Your task to perform on an android device: turn off notifications in google photos Image 0: 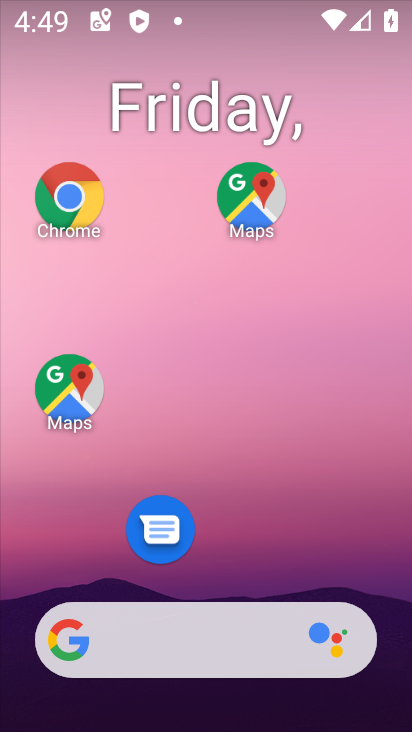
Step 0: drag from (262, 547) to (243, 107)
Your task to perform on an android device: turn off notifications in google photos Image 1: 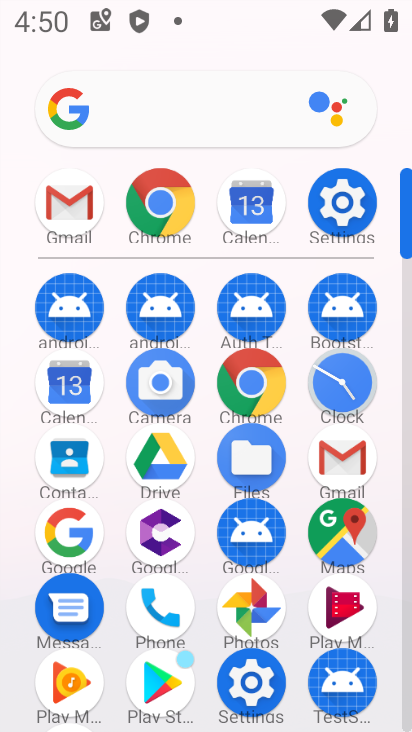
Step 1: drag from (326, 577) to (405, 387)
Your task to perform on an android device: turn off notifications in google photos Image 2: 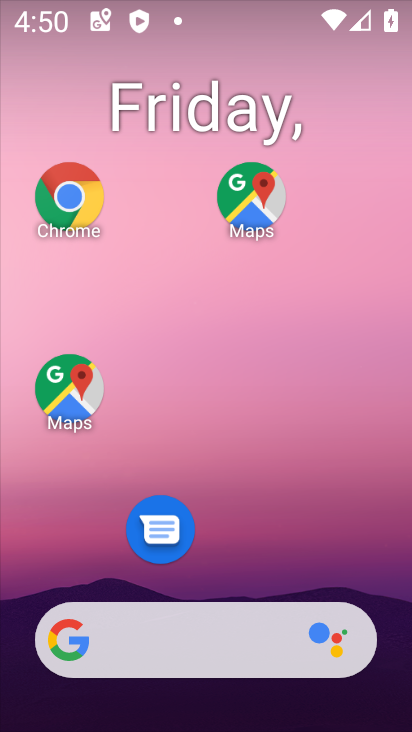
Step 2: click (202, 628)
Your task to perform on an android device: turn off notifications in google photos Image 3: 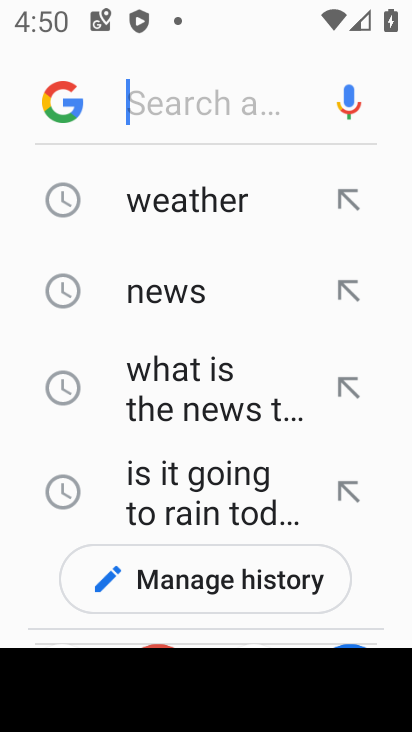
Step 3: press home button
Your task to perform on an android device: turn off notifications in google photos Image 4: 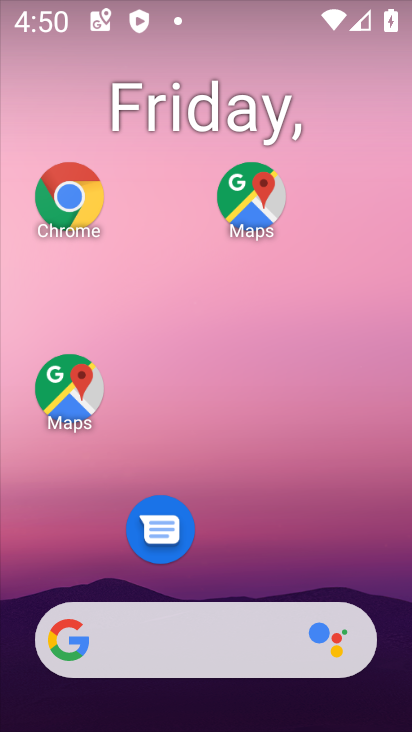
Step 4: drag from (231, 558) to (214, 121)
Your task to perform on an android device: turn off notifications in google photos Image 5: 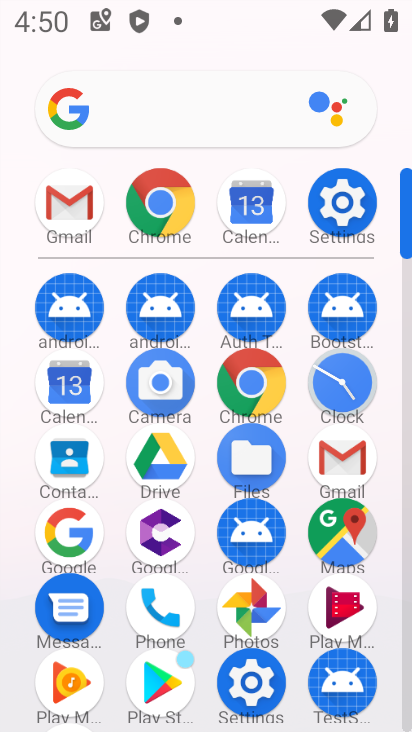
Step 5: click (248, 603)
Your task to perform on an android device: turn off notifications in google photos Image 6: 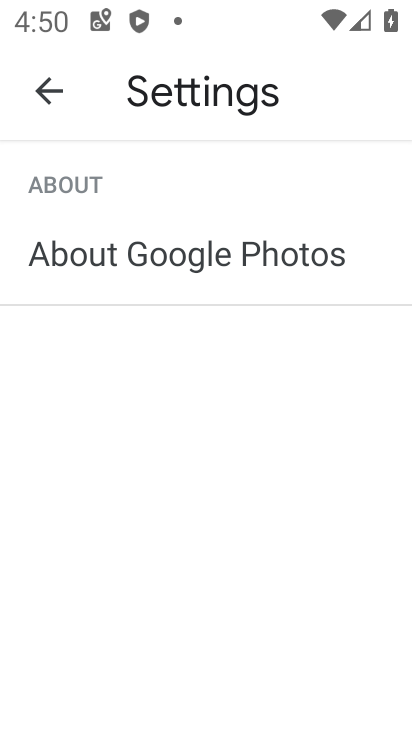
Step 6: click (38, 91)
Your task to perform on an android device: turn off notifications in google photos Image 7: 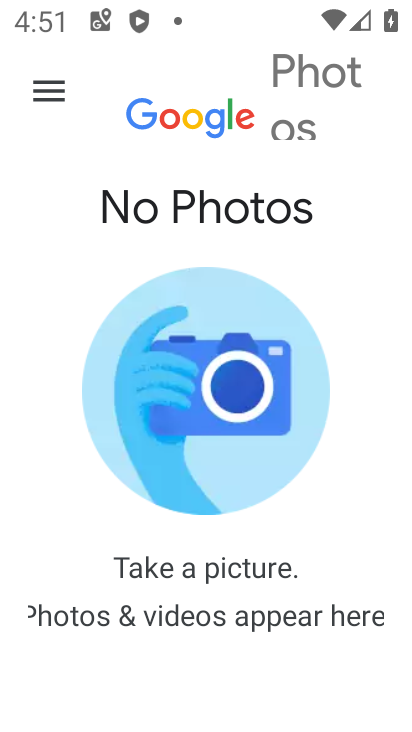
Step 7: click (53, 86)
Your task to perform on an android device: turn off notifications in google photos Image 8: 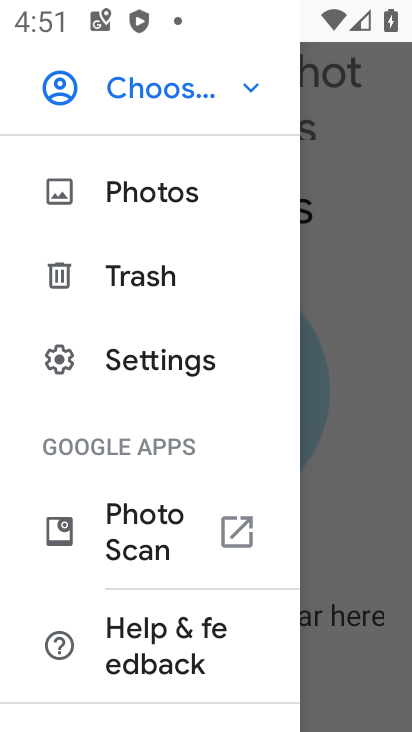
Step 8: drag from (157, 603) to (213, 329)
Your task to perform on an android device: turn off notifications in google photos Image 9: 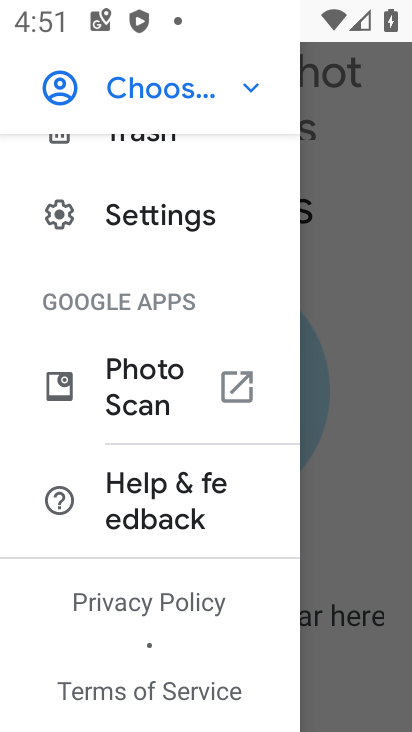
Step 9: click (142, 225)
Your task to perform on an android device: turn off notifications in google photos Image 10: 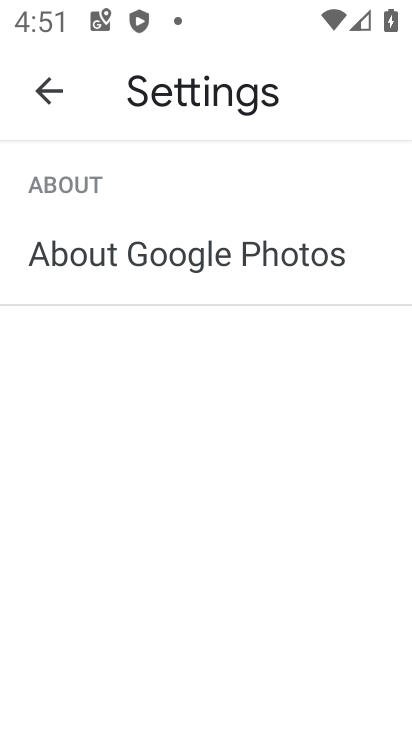
Step 10: click (42, 91)
Your task to perform on an android device: turn off notifications in google photos Image 11: 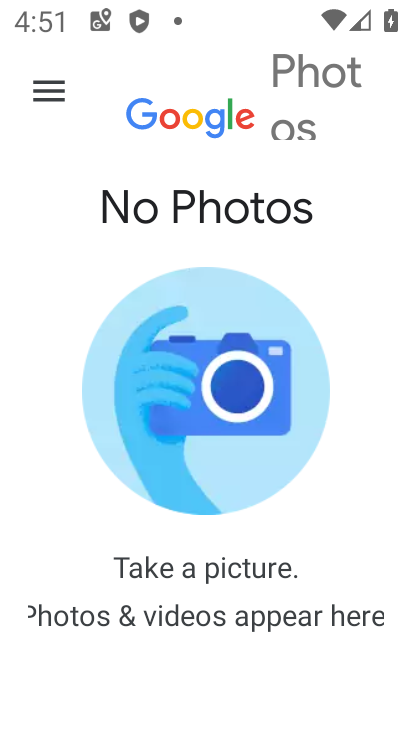
Step 11: click (43, 90)
Your task to perform on an android device: turn off notifications in google photos Image 12: 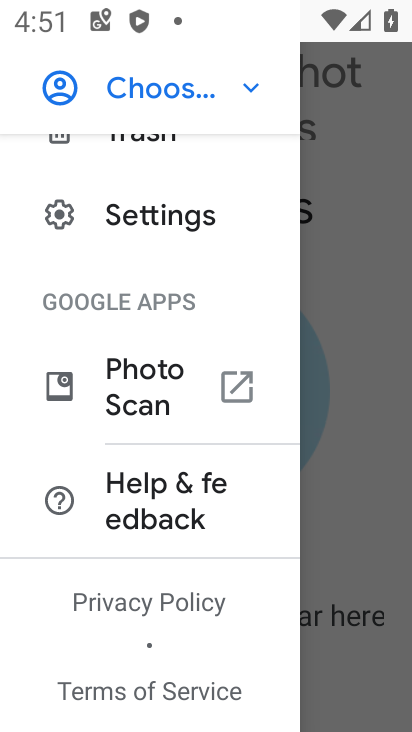
Step 12: click (156, 217)
Your task to perform on an android device: turn off notifications in google photos Image 13: 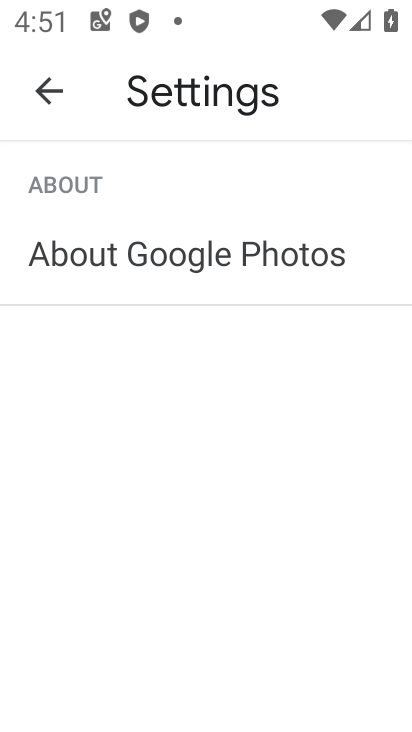
Step 13: click (42, 92)
Your task to perform on an android device: turn off notifications in google photos Image 14: 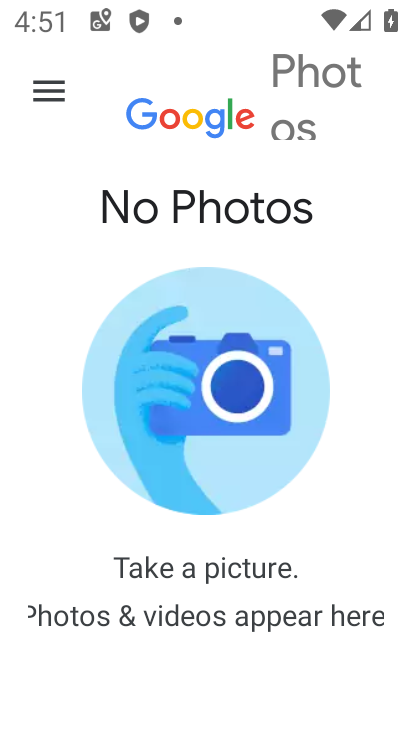
Step 14: click (42, 92)
Your task to perform on an android device: turn off notifications in google photos Image 15: 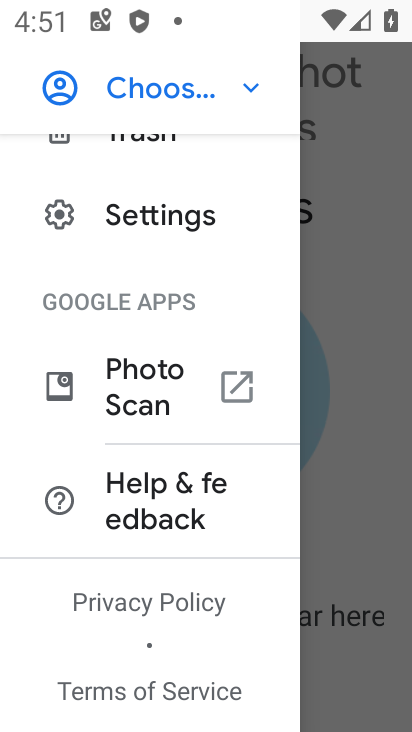
Step 15: click (169, 214)
Your task to perform on an android device: turn off notifications in google photos Image 16: 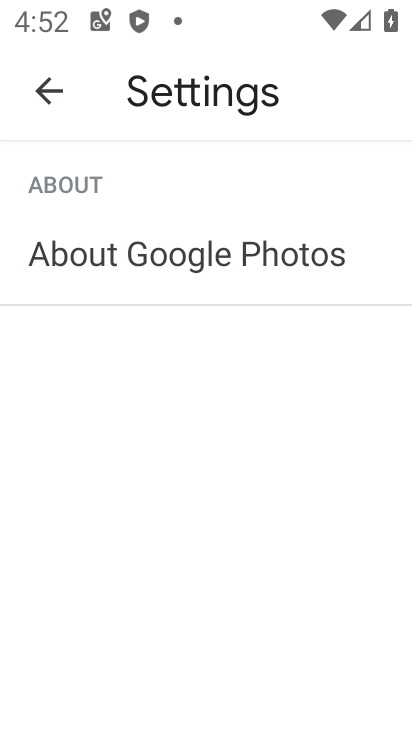
Step 16: click (51, 96)
Your task to perform on an android device: turn off notifications in google photos Image 17: 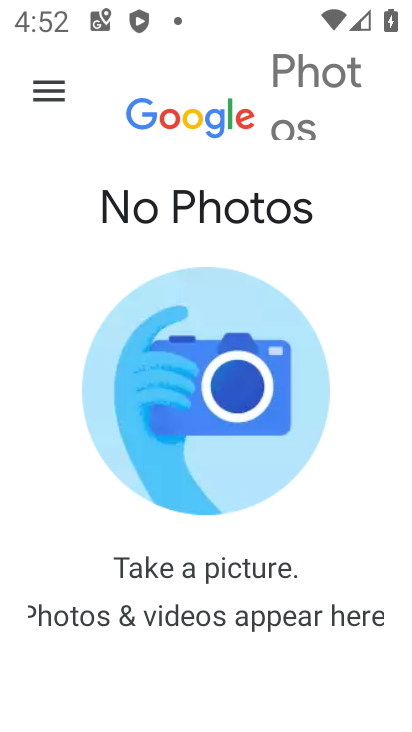
Step 17: click (49, 88)
Your task to perform on an android device: turn off notifications in google photos Image 18: 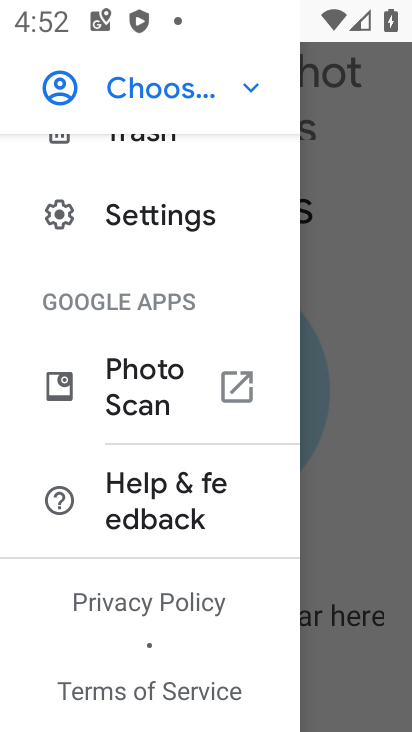
Step 18: drag from (160, 251) to (144, 569)
Your task to perform on an android device: turn off notifications in google photos Image 19: 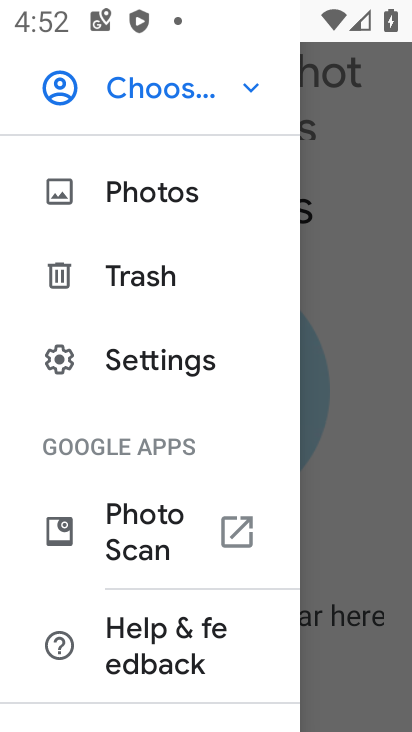
Step 19: click (148, 361)
Your task to perform on an android device: turn off notifications in google photos Image 20: 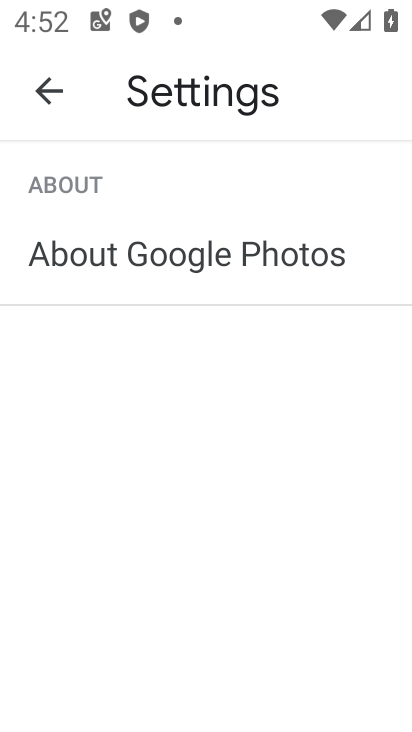
Step 20: task complete